Your task to perform on an android device: turn off location Image 0: 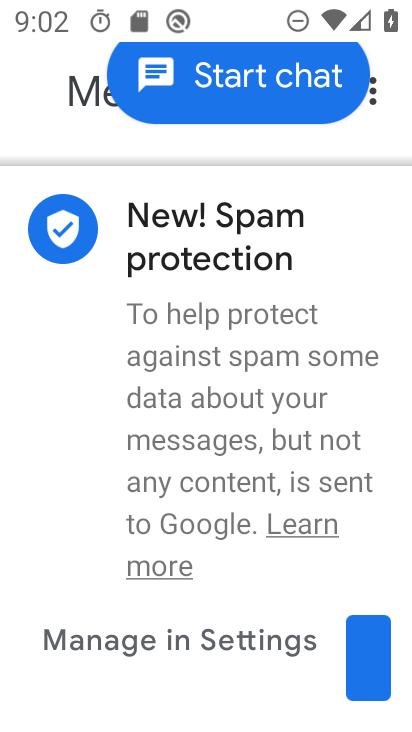
Step 0: press home button
Your task to perform on an android device: turn off location Image 1: 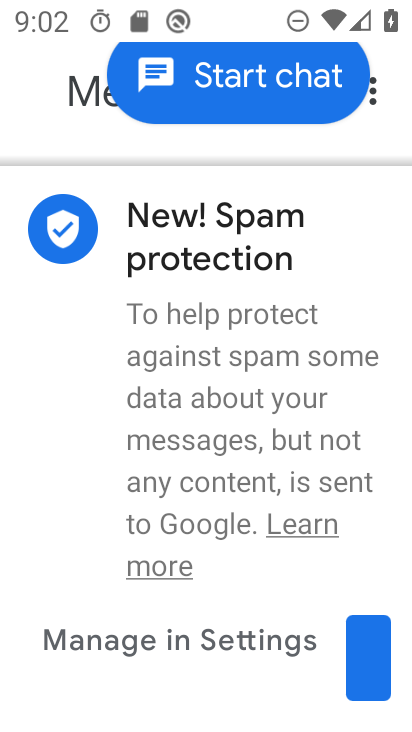
Step 1: press home button
Your task to perform on an android device: turn off location Image 2: 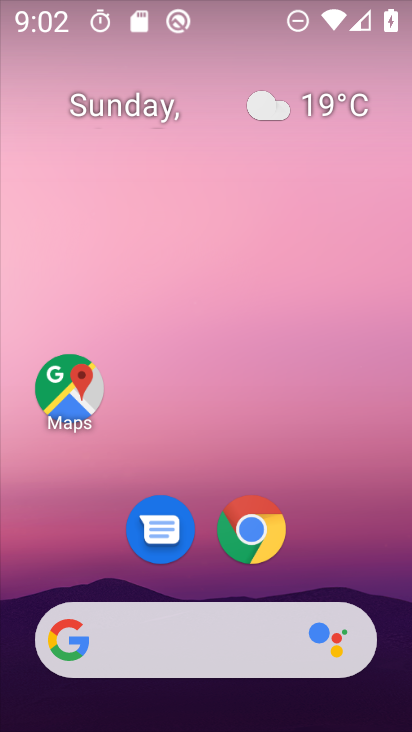
Step 2: drag from (212, 577) to (233, 91)
Your task to perform on an android device: turn off location Image 3: 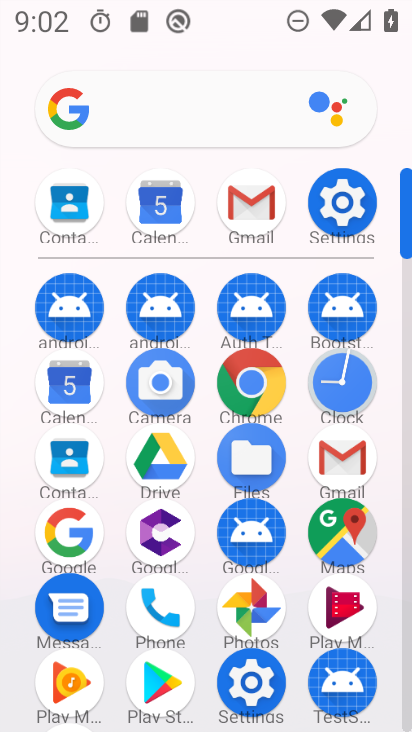
Step 3: click (342, 196)
Your task to perform on an android device: turn off location Image 4: 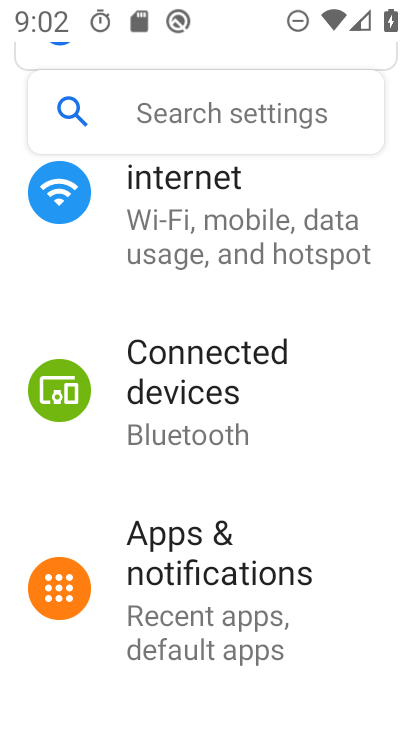
Step 4: drag from (199, 641) to (217, 124)
Your task to perform on an android device: turn off location Image 5: 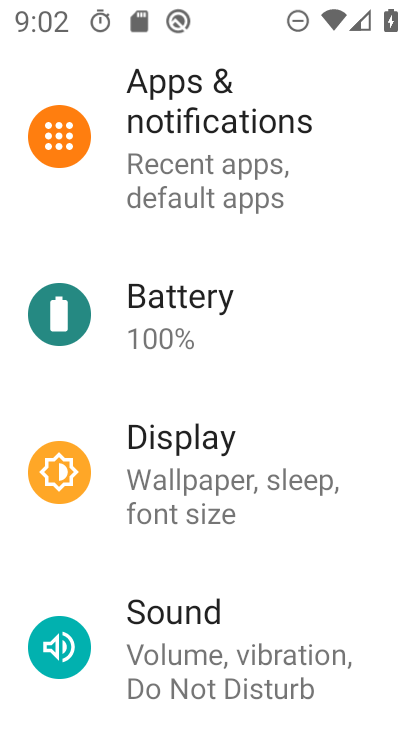
Step 5: drag from (196, 639) to (184, 52)
Your task to perform on an android device: turn off location Image 6: 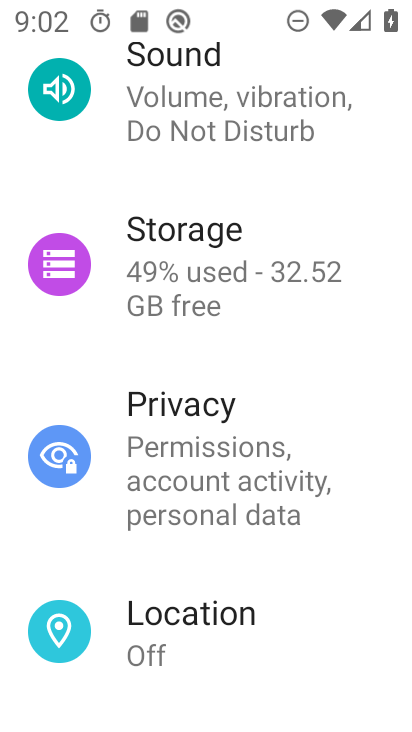
Step 6: click (213, 648)
Your task to perform on an android device: turn off location Image 7: 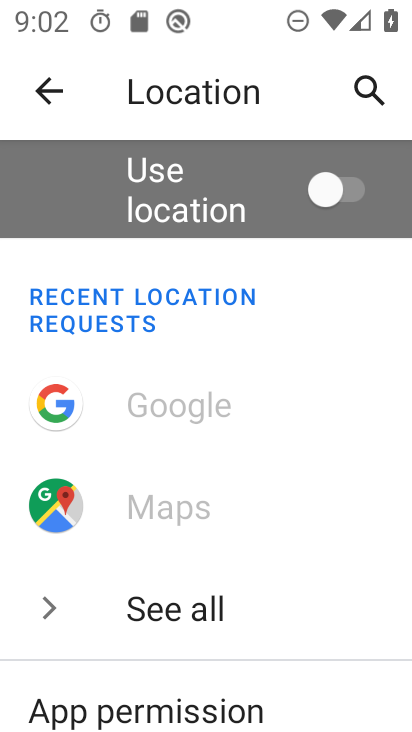
Step 7: task complete